Your task to perform on an android device: open app "Roku - Official Remote Control" (install if not already installed) and go to login screen Image 0: 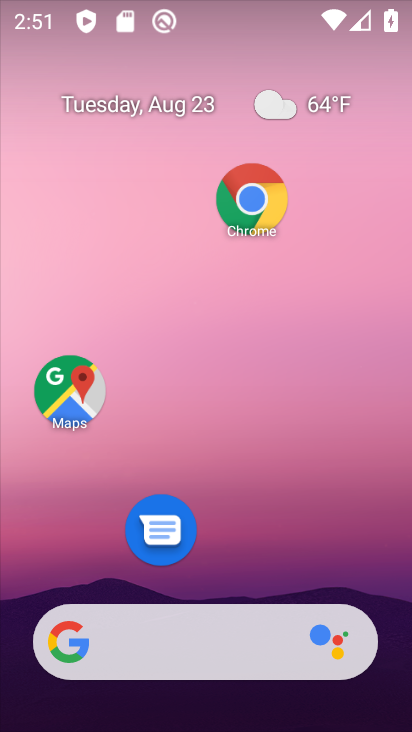
Step 0: drag from (255, 536) to (364, 43)
Your task to perform on an android device: open app "Roku - Official Remote Control" (install if not already installed) and go to login screen Image 1: 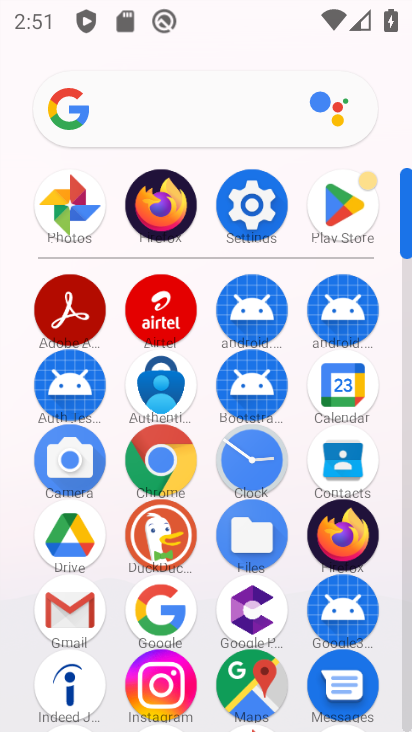
Step 1: click (349, 223)
Your task to perform on an android device: open app "Roku - Official Remote Control" (install if not already installed) and go to login screen Image 2: 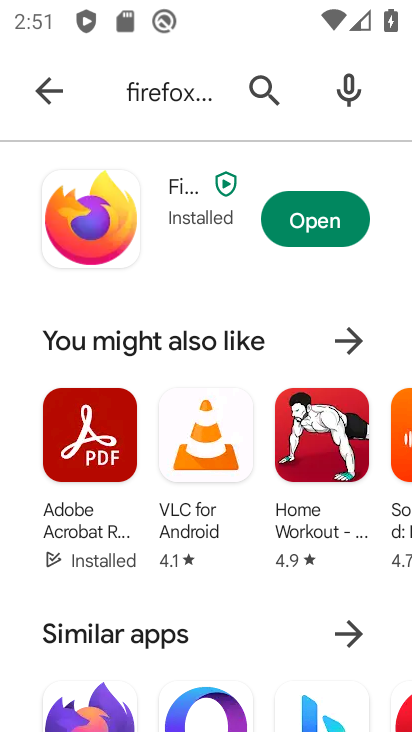
Step 2: click (178, 98)
Your task to perform on an android device: open app "Roku - Official Remote Control" (install if not already installed) and go to login screen Image 3: 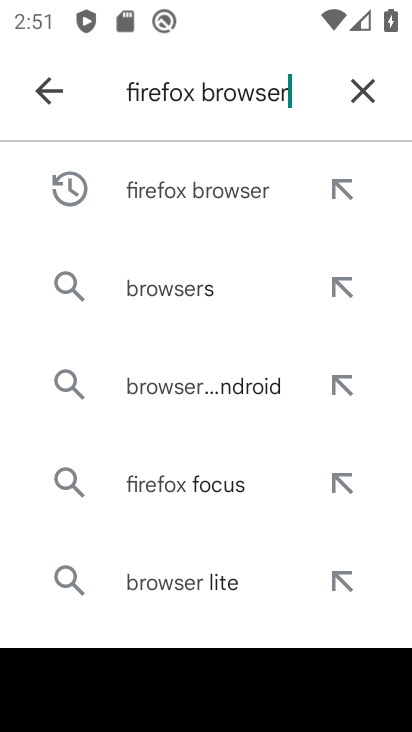
Step 3: click (367, 96)
Your task to perform on an android device: open app "Roku - Official Remote Control" (install if not already installed) and go to login screen Image 4: 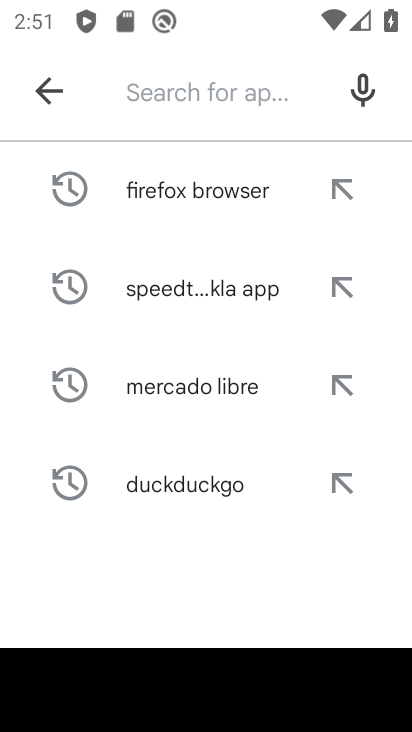
Step 4: type "Roku"
Your task to perform on an android device: open app "Roku - Official Remote Control" (install if not already installed) and go to login screen Image 5: 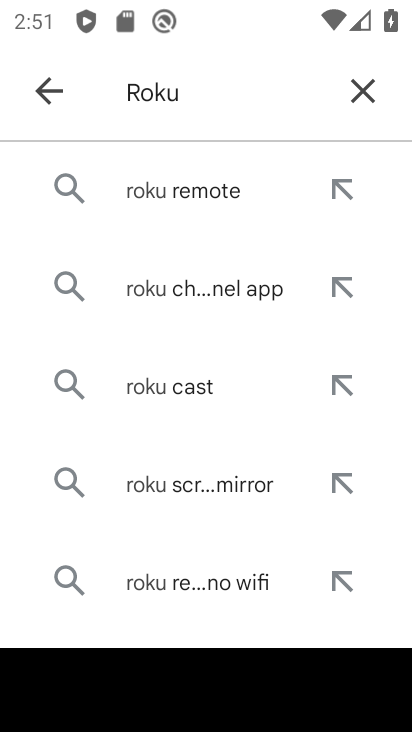
Step 5: click (193, 187)
Your task to perform on an android device: open app "Roku - Official Remote Control" (install if not already installed) and go to login screen Image 6: 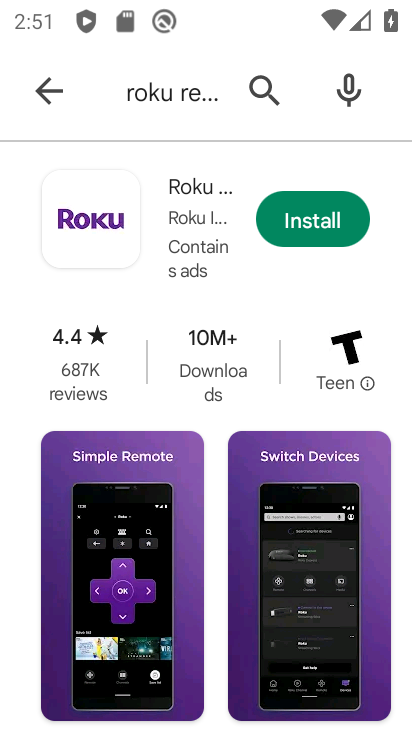
Step 6: click (342, 228)
Your task to perform on an android device: open app "Roku - Official Remote Control" (install if not already installed) and go to login screen Image 7: 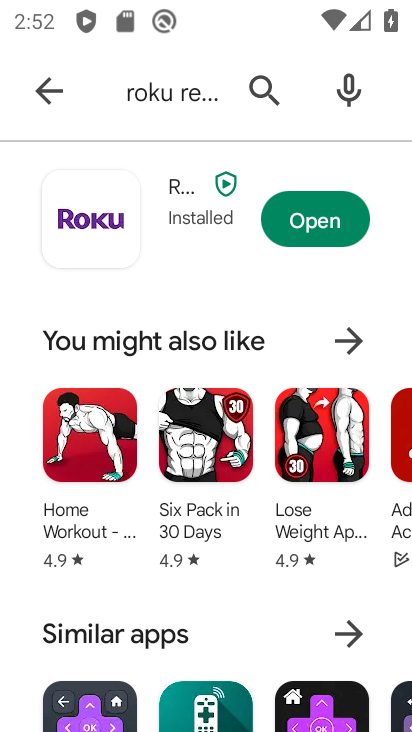
Step 7: click (307, 209)
Your task to perform on an android device: open app "Roku - Official Remote Control" (install if not already installed) and go to login screen Image 8: 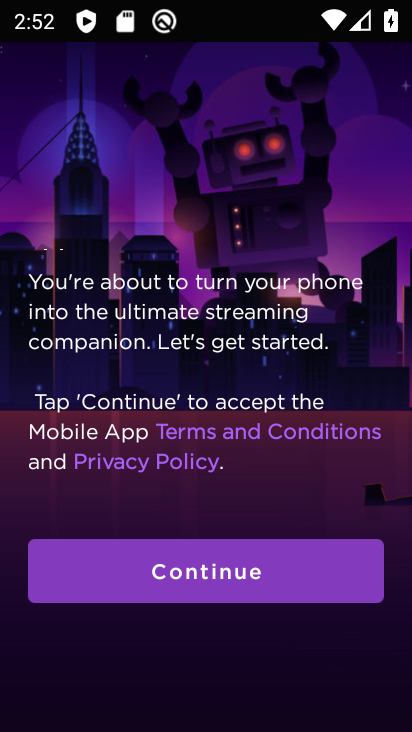
Step 8: click (210, 569)
Your task to perform on an android device: open app "Roku - Official Remote Control" (install if not already installed) and go to login screen Image 9: 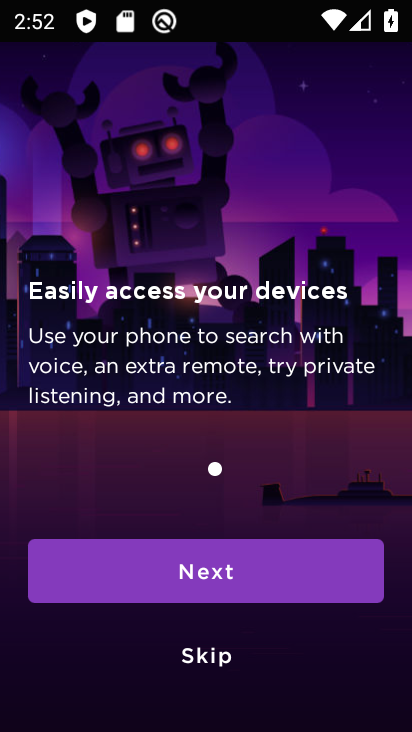
Step 9: click (223, 592)
Your task to perform on an android device: open app "Roku - Official Remote Control" (install if not already installed) and go to login screen Image 10: 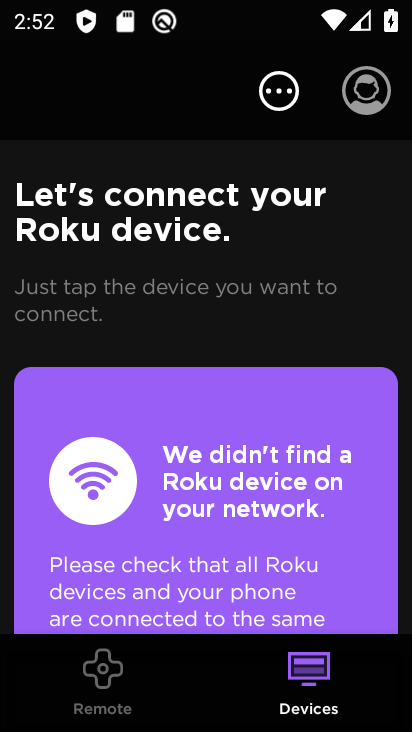
Step 10: click (370, 90)
Your task to perform on an android device: open app "Roku - Official Remote Control" (install if not already installed) and go to login screen Image 11: 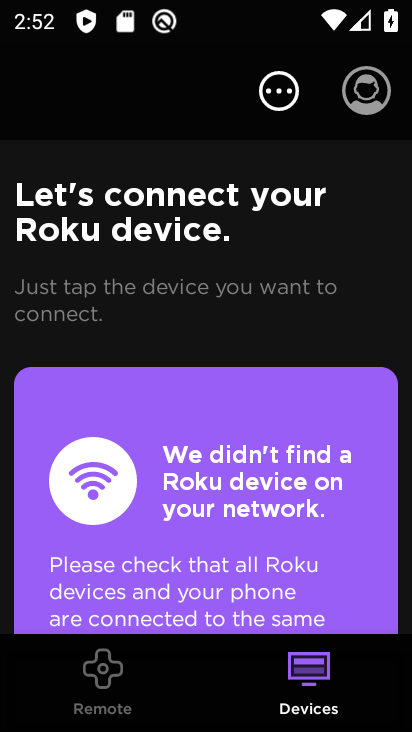
Step 11: click (359, 98)
Your task to perform on an android device: open app "Roku - Official Remote Control" (install if not already installed) and go to login screen Image 12: 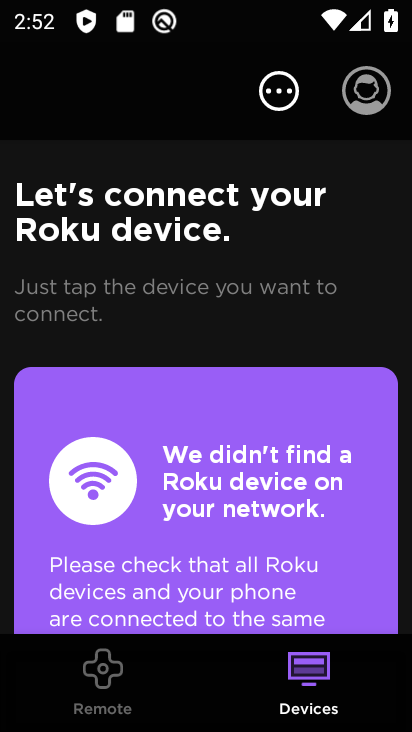
Step 12: click (307, 664)
Your task to perform on an android device: open app "Roku - Official Remote Control" (install if not already installed) and go to login screen Image 13: 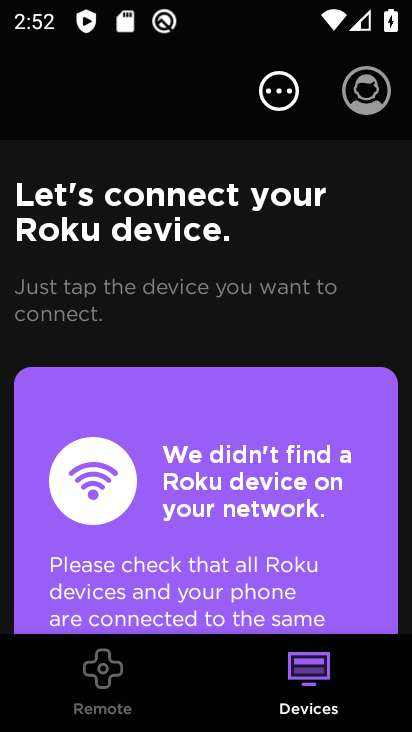
Step 13: click (95, 678)
Your task to perform on an android device: open app "Roku - Official Remote Control" (install if not already installed) and go to login screen Image 14: 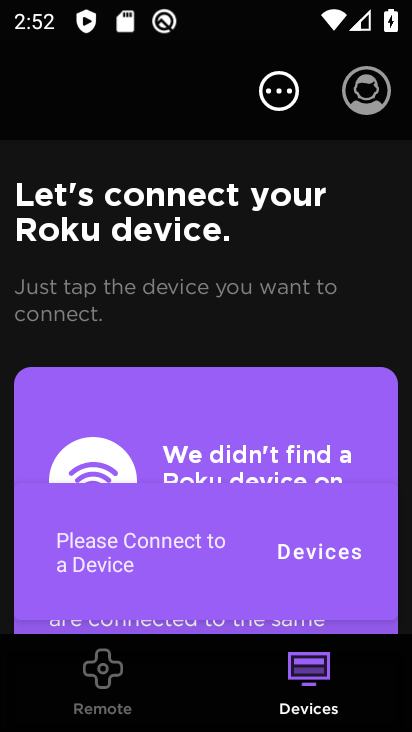
Step 14: click (363, 94)
Your task to perform on an android device: open app "Roku - Official Remote Control" (install if not already installed) and go to login screen Image 15: 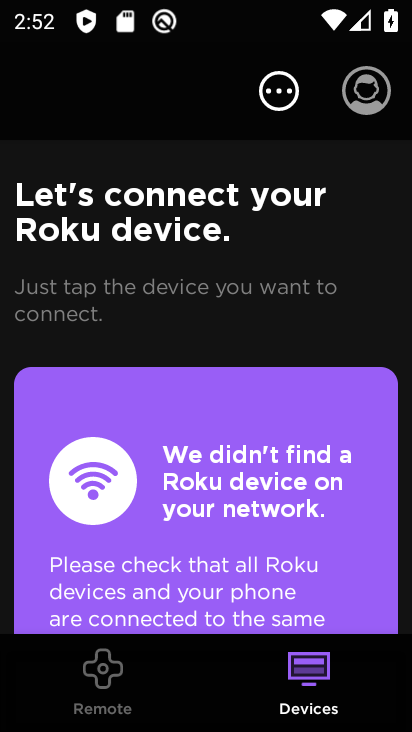
Step 15: click (369, 97)
Your task to perform on an android device: open app "Roku - Official Remote Control" (install if not already installed) and go to login screen Image 16: 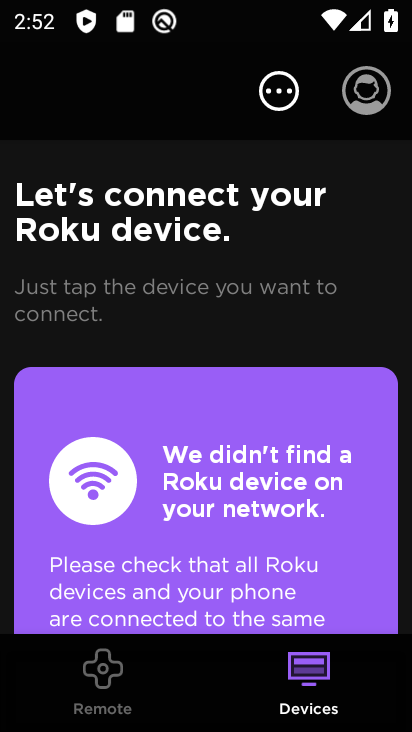
Step 16: click (369, 98)
Your task to perform on an android device: open app "Roku - Official Remote Control" (install if not already installed) and go to login screen Image 17: 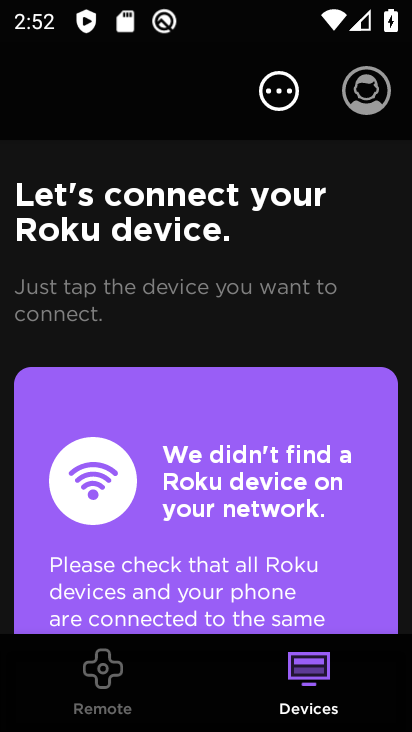
Step 17: task complete